Your task to perform on an android device: change timer sound Image 0: 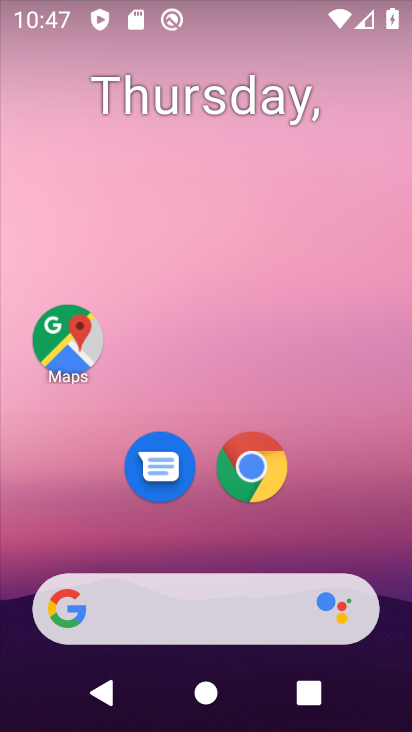
Step 0: drag from (361, 546) to (279, 3)
Your task to perform on an android device: change timer sound Image 1: 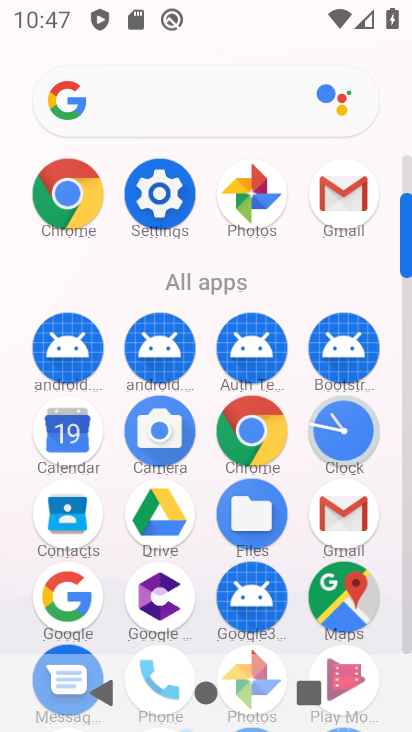
Step 1: click (347, 421)
Your task to perform on an android device: change timer sound Image 2: 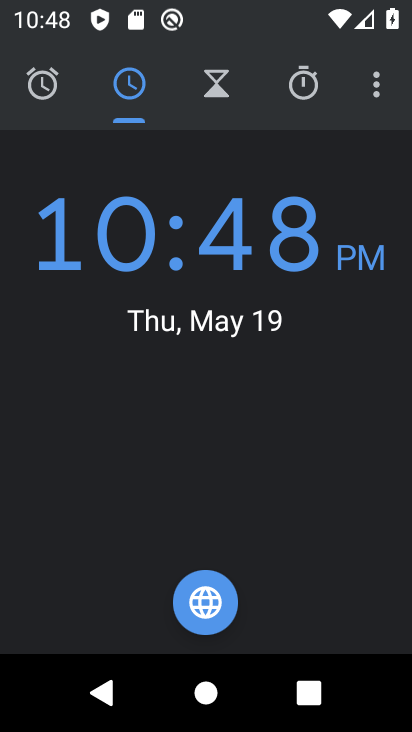
Step 2: click (376, 90)
Your task to perform on an android device: change timer sound Image 3: 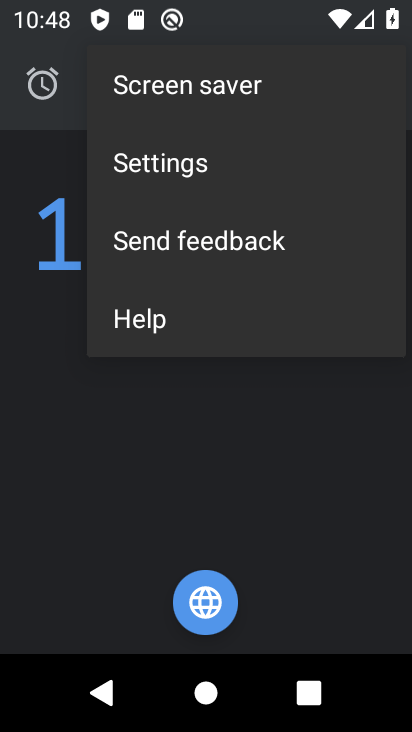
Step 3: click (178, 176)
Your task to perform on an android device: change timer sound Image 4: 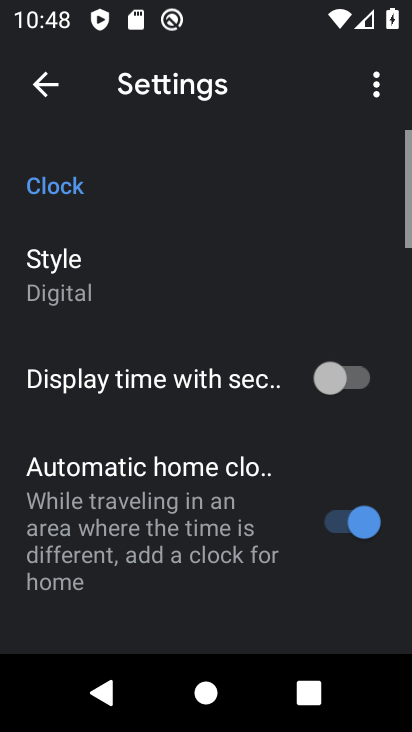
Step 4: drag from (166, 570) to (175, 86)
Your task to perform on an android device: change timer sound Image 5: 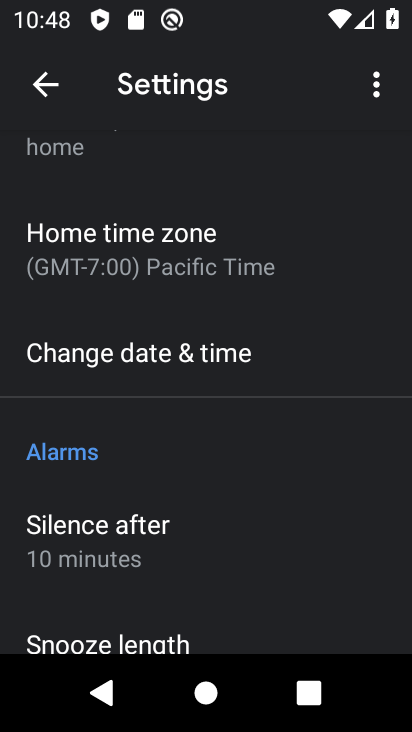
Step 5: drag from (170, 507) to (177, 121)
Your task to perform on an android device: change timer sound Image 6: 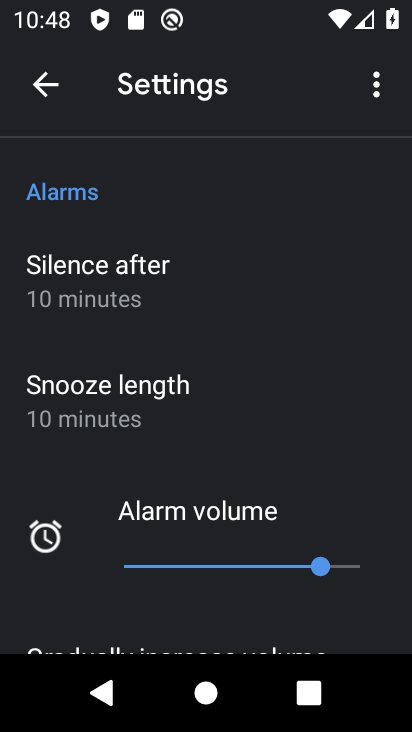
Step 6: drag from (234, 393) to (210, 90)
Your task to perform on an android device: change timer sound Image 7: 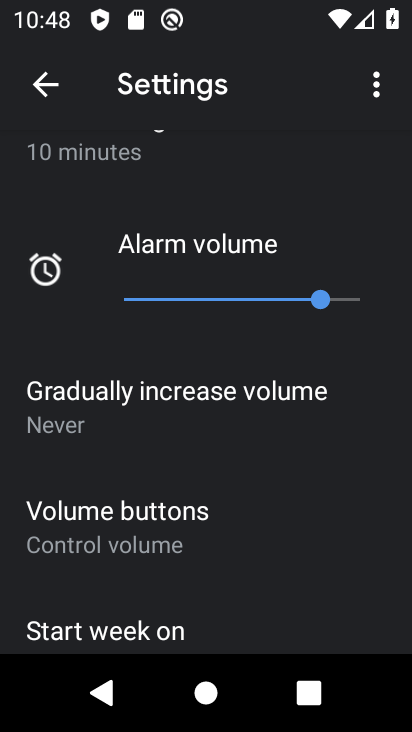
Step 7: drag from (207, 473) to (182, 129)
Your task to perform on an android device: change timer sound Image 8: 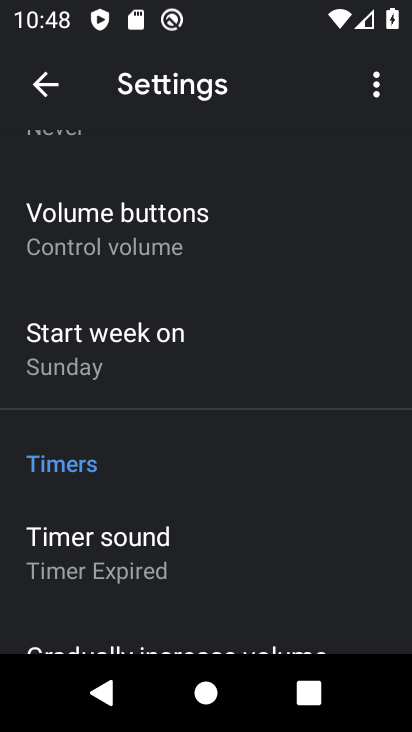
Step 8: click (112, 556)
Your task to perform on an android device: change timer sound Image 9: 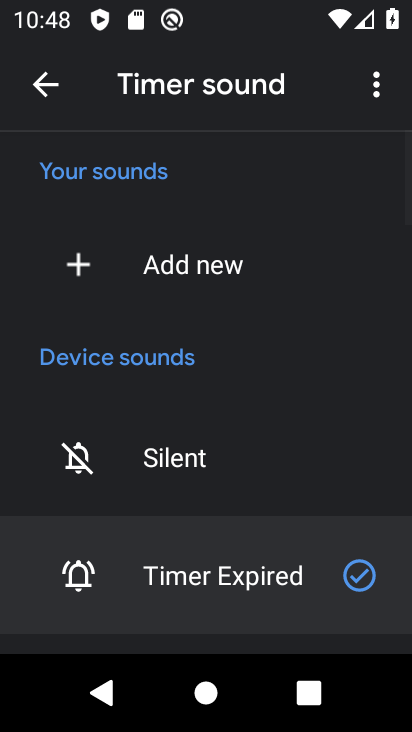
Step 9: drag from (257, 492) to (255, 113)
Your task to perform on an android device: change timer sound Image 10: 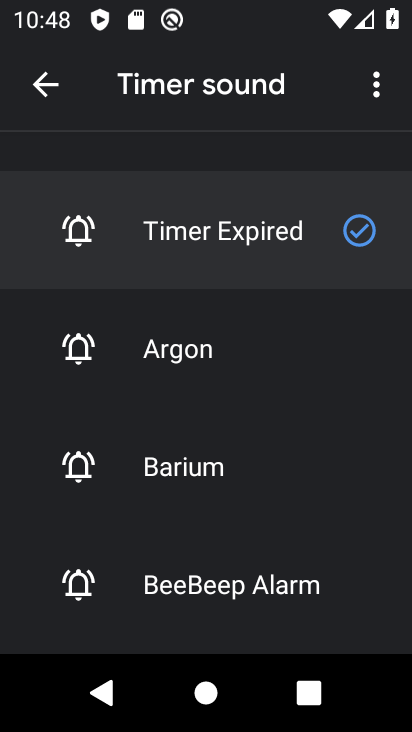
Step 10: click (175, 358)
Your task to perform on an android device: change timer sound Image 11: 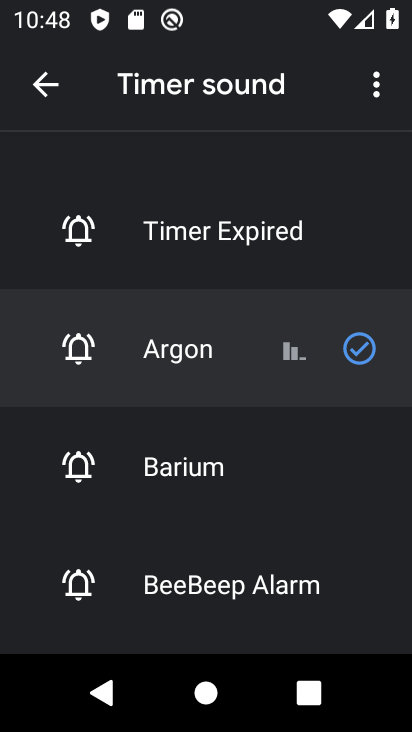
Step 11: task complete